Your task to perform on an android device: Clear all items from cart on amazon. Add "asus rog" to the cart on amazon, then select checkout. Image 0: 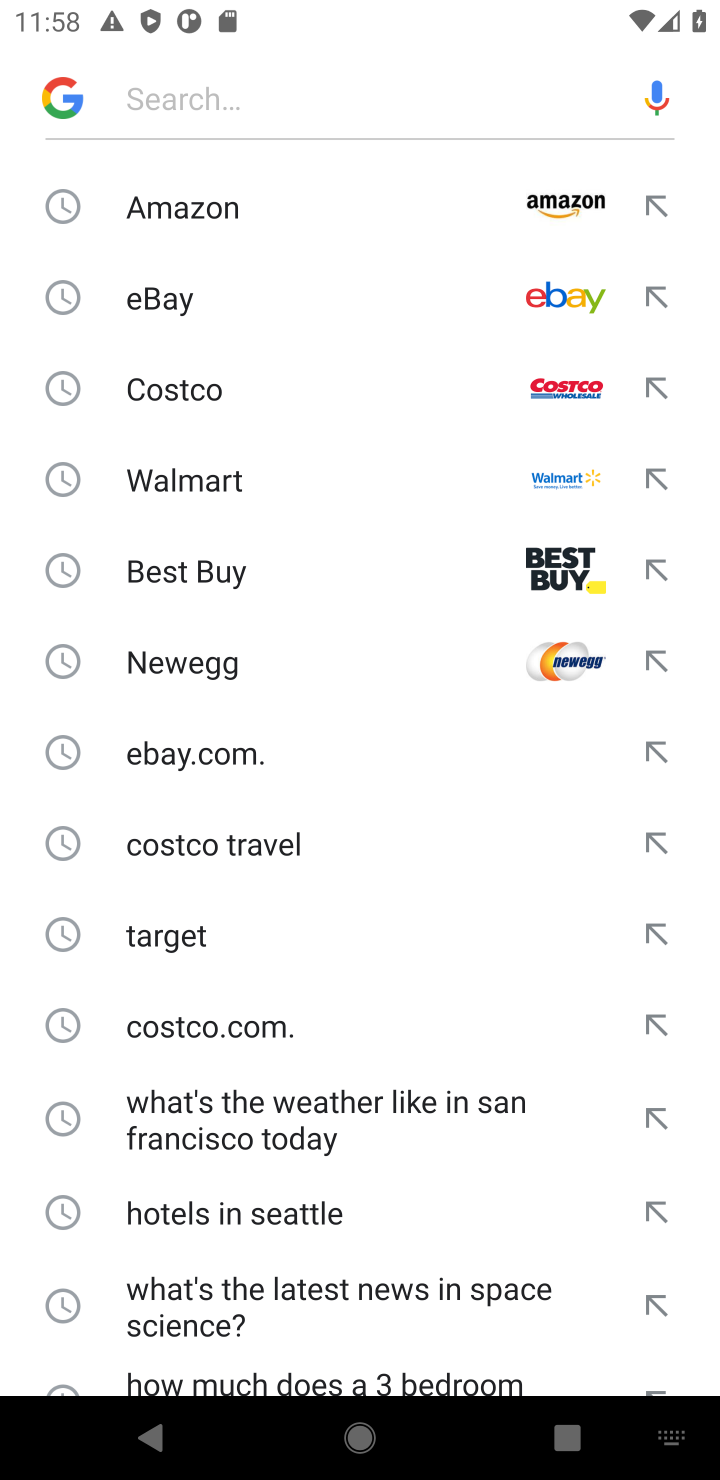
Step 0: click (351, 194)
Your task to perform on an android device: Clear all items from cart on amazon. Add "asus rog" to the cart on amazon, then select checkout. Image 1: 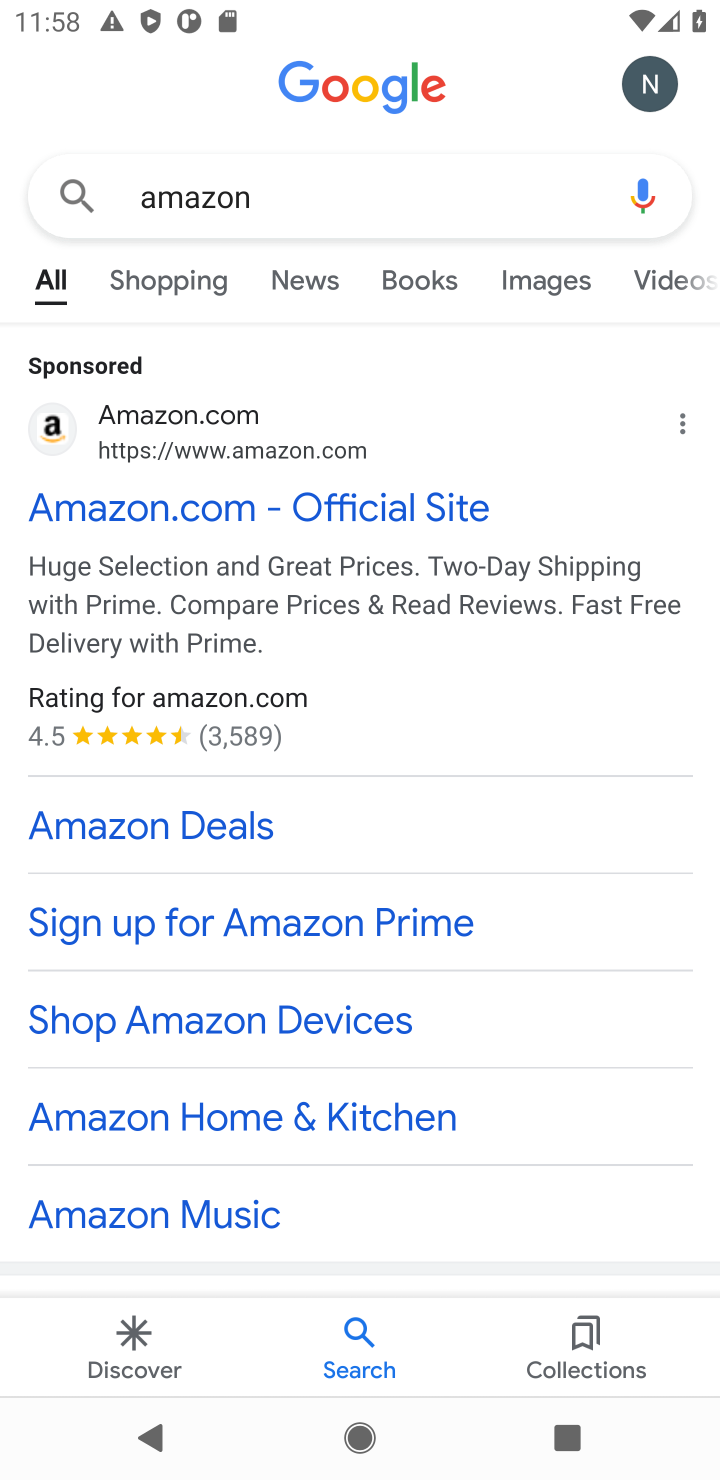
Step 1: drag from (421, 807) to (495, 327)
Your task to perform on an android device: Clear all items from cart on amazon. Add "asus rog" to the cart on amazon, then select checkout. Image 2: 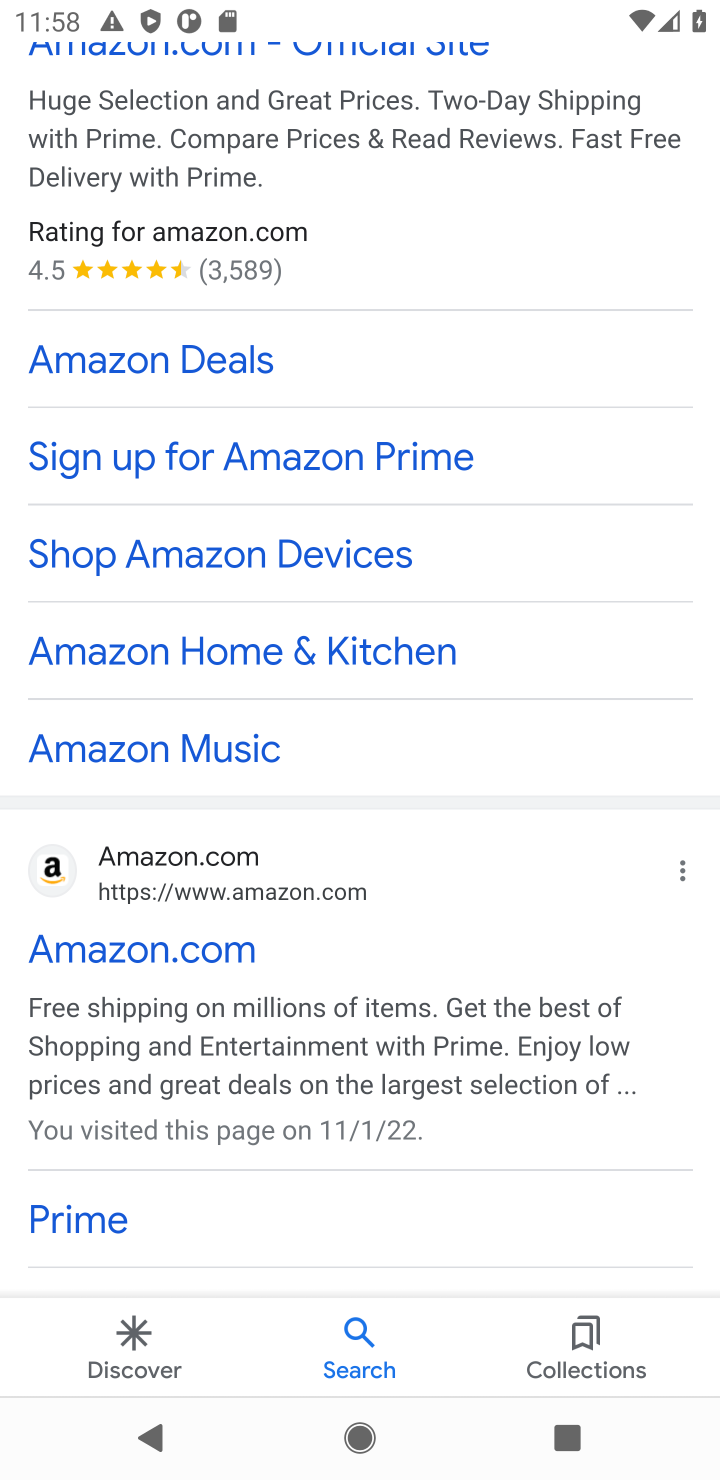
Step 2: click (133, 948)
Your task to perform on an android device: Clear all items from cart on amazon. Add "asus rog" to the cart on amazon, then select checkout. Image 3: 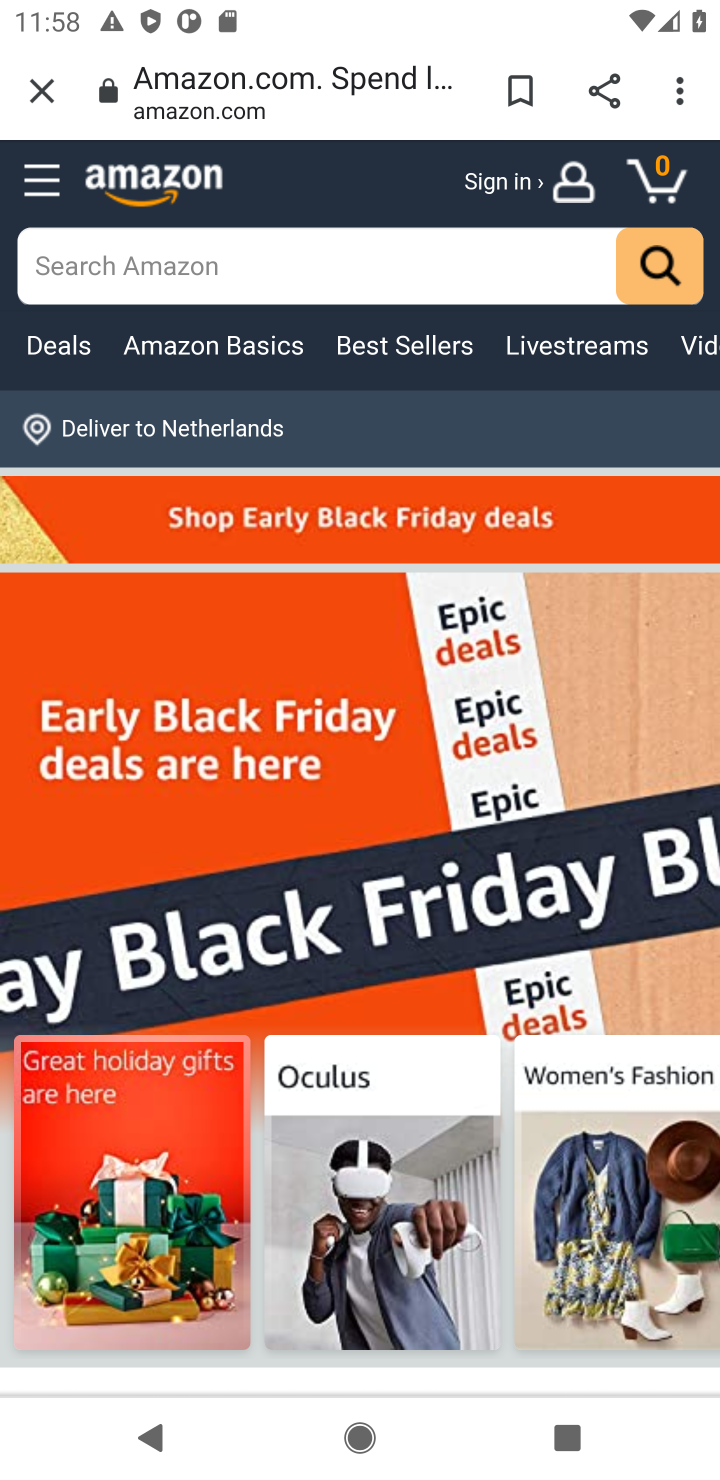
Step 3: click (170, 246)
Your task to perform on an android device: Clear all items from cart on amazon. Add "asus rog" to the cart on amazon, then select checkout. Image 4: 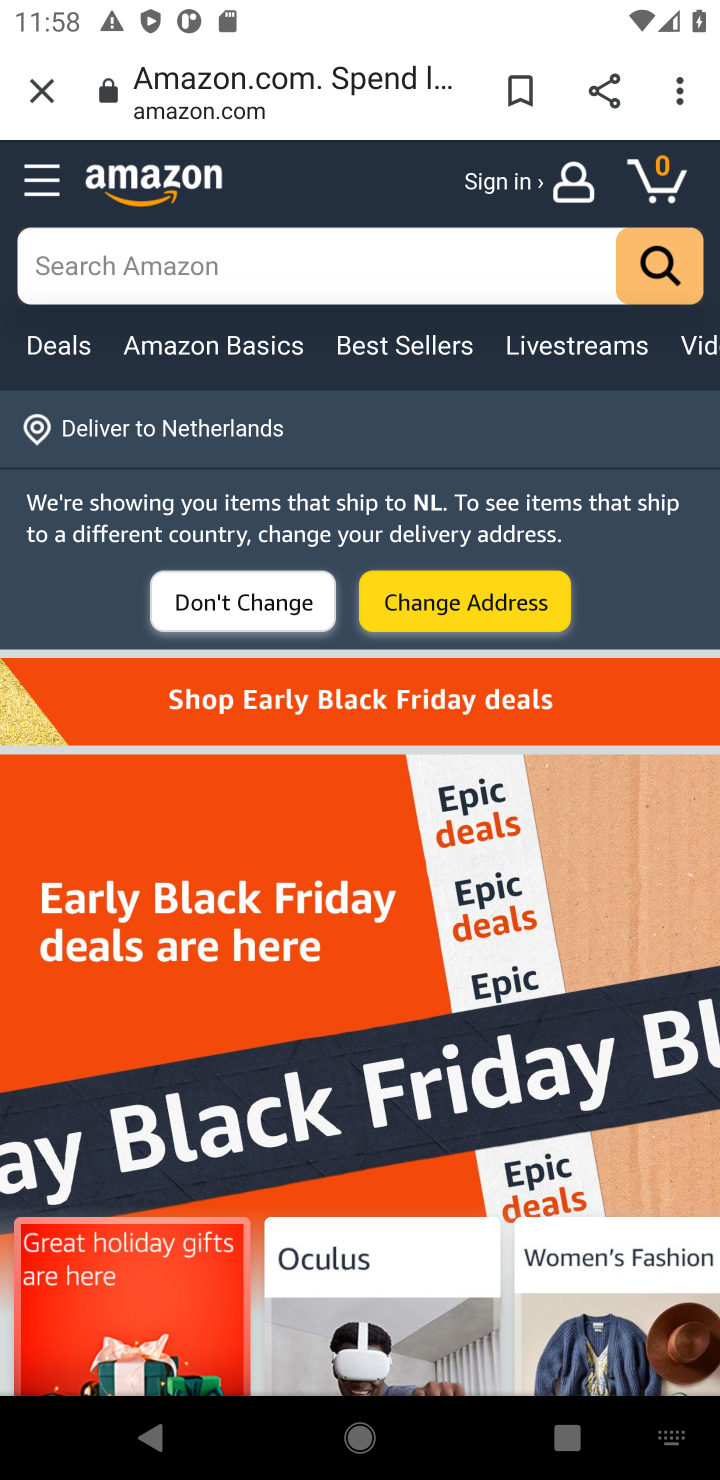
Step 4: type "asus rog"
Your task to perform on an android device: Clear all items from cart on amazon. Add "asus rog" to the cart on amazon, then select checkout. Image 5: 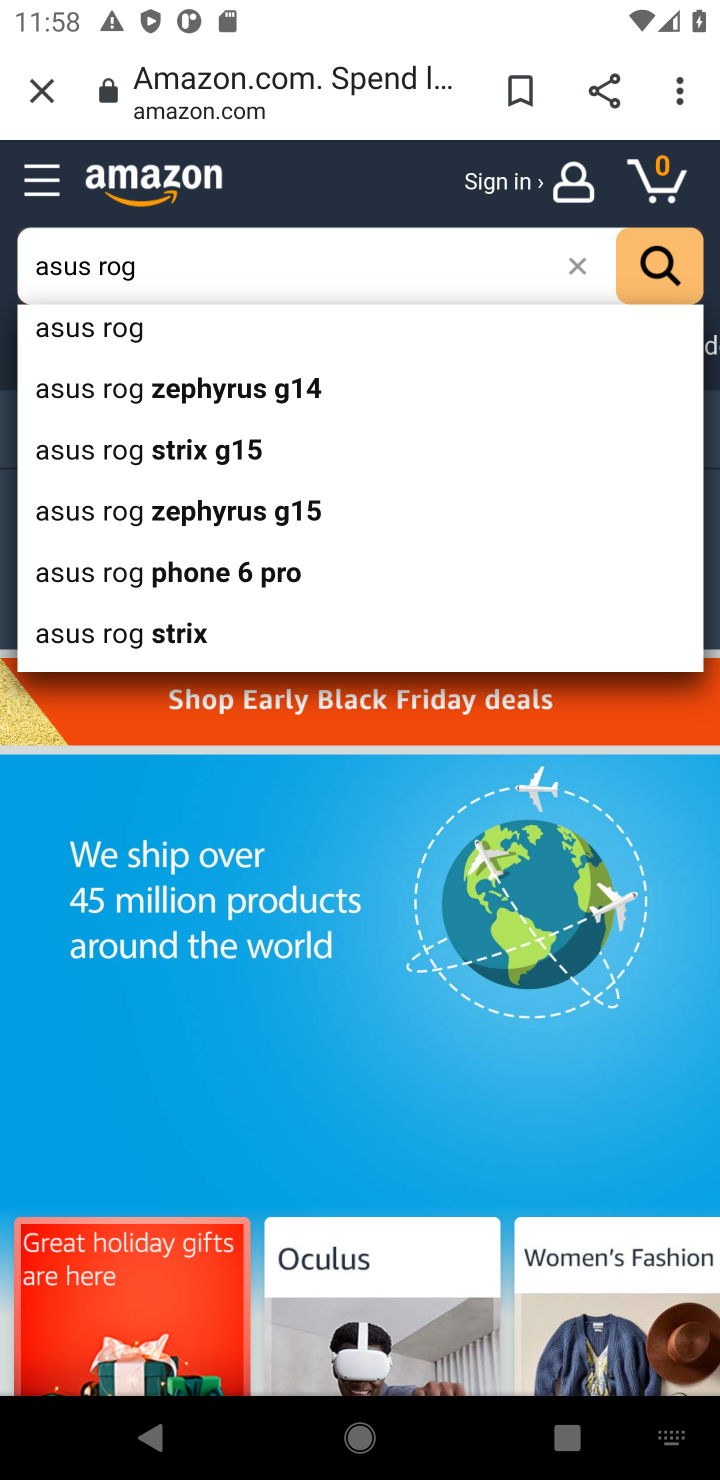
Step 5: click (53, 321)
Your task to perform on an android device: Clear all items from cart on amazon. Add "asus rog" to the cart on amazon, then select checkout. Image 6: 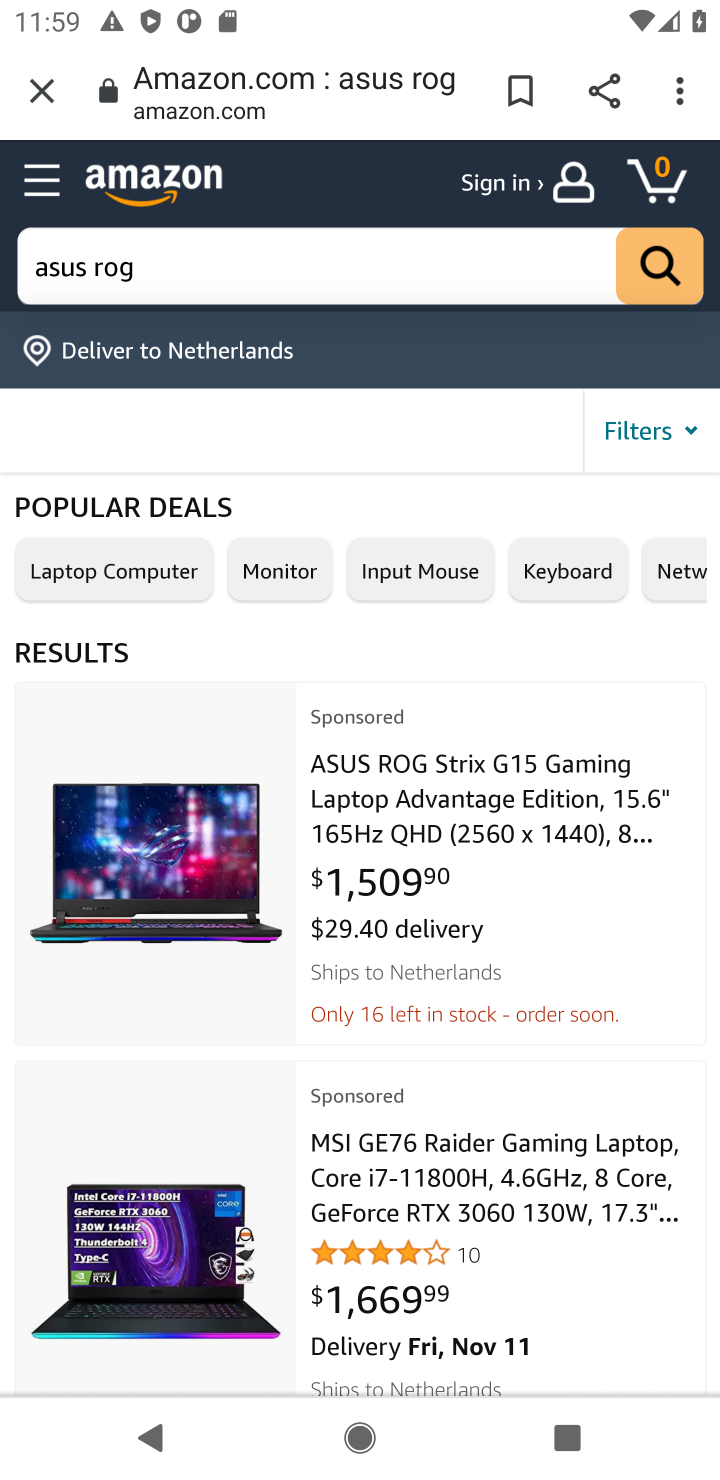
Step 6: click (497, 841)
Your task to perform on an android device: Clear all items from cart on amazon. Add "asus rog" to the cart on amazon, then select checkout. Image 7: 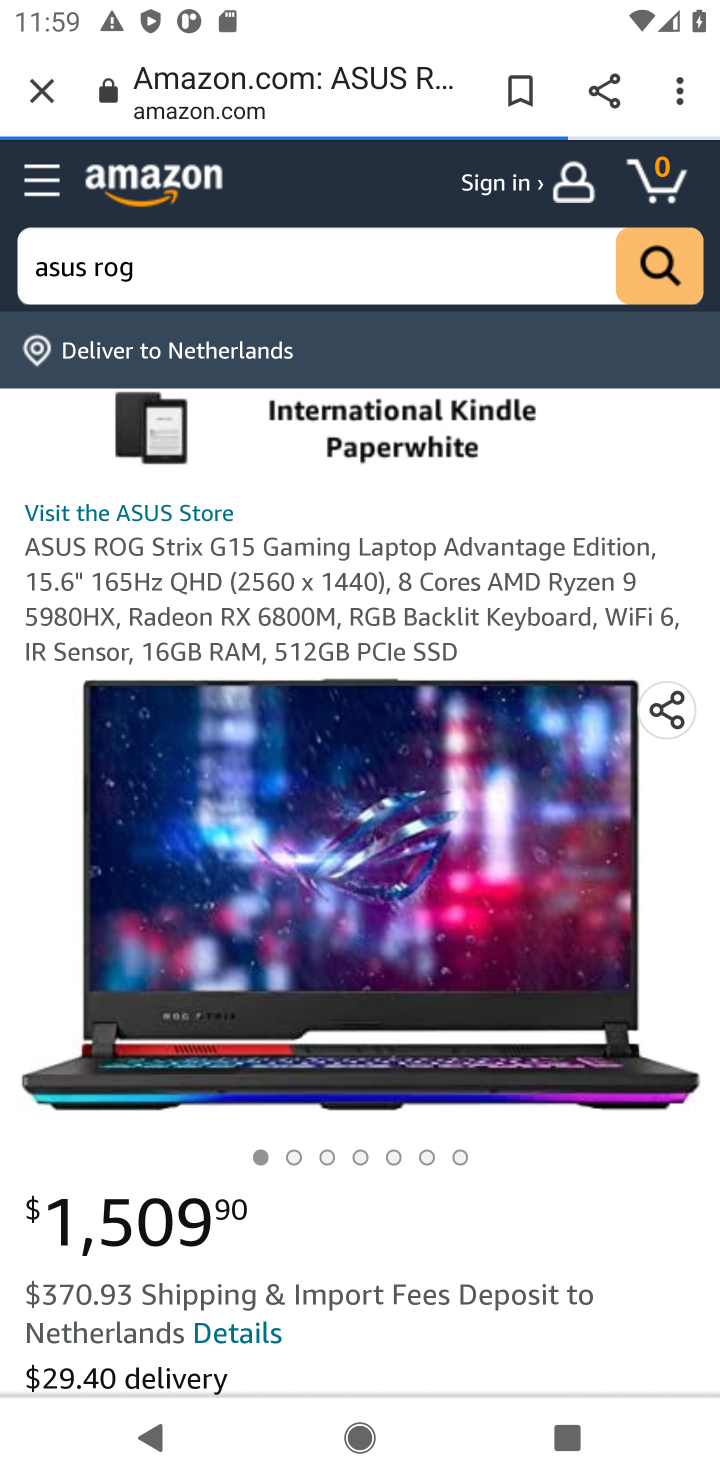
Step 7: drag from (447, 1266) to (649, 532)
Your task to perform on an android device: Clear all items from cart on amazon. Add "asus rog" to the cart on amazon, then select checkout. Image 8: 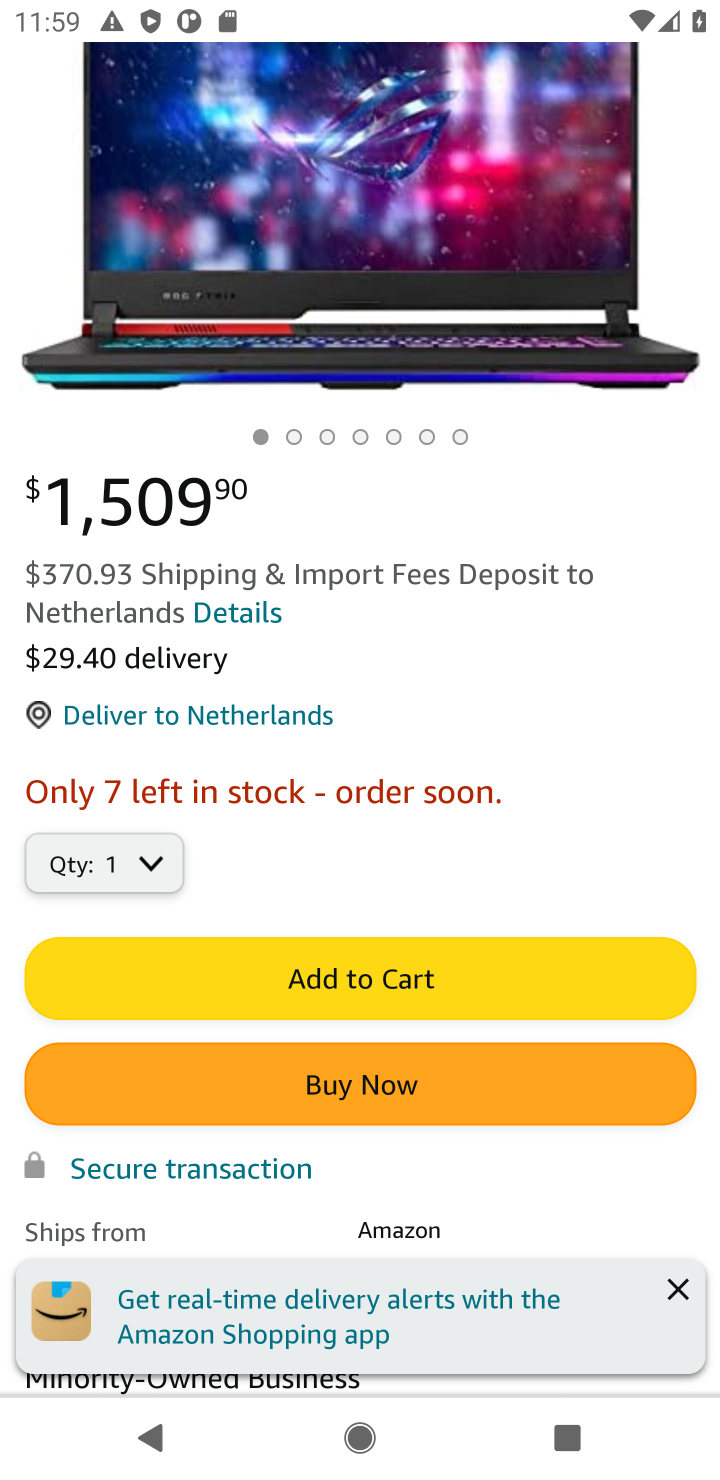
Step 8: click (389, 973)
Your task to perform on an android device: Clear all items from cart on amazon. Add "asus rog" to the cart on amazon, then select checkout. Image 9: 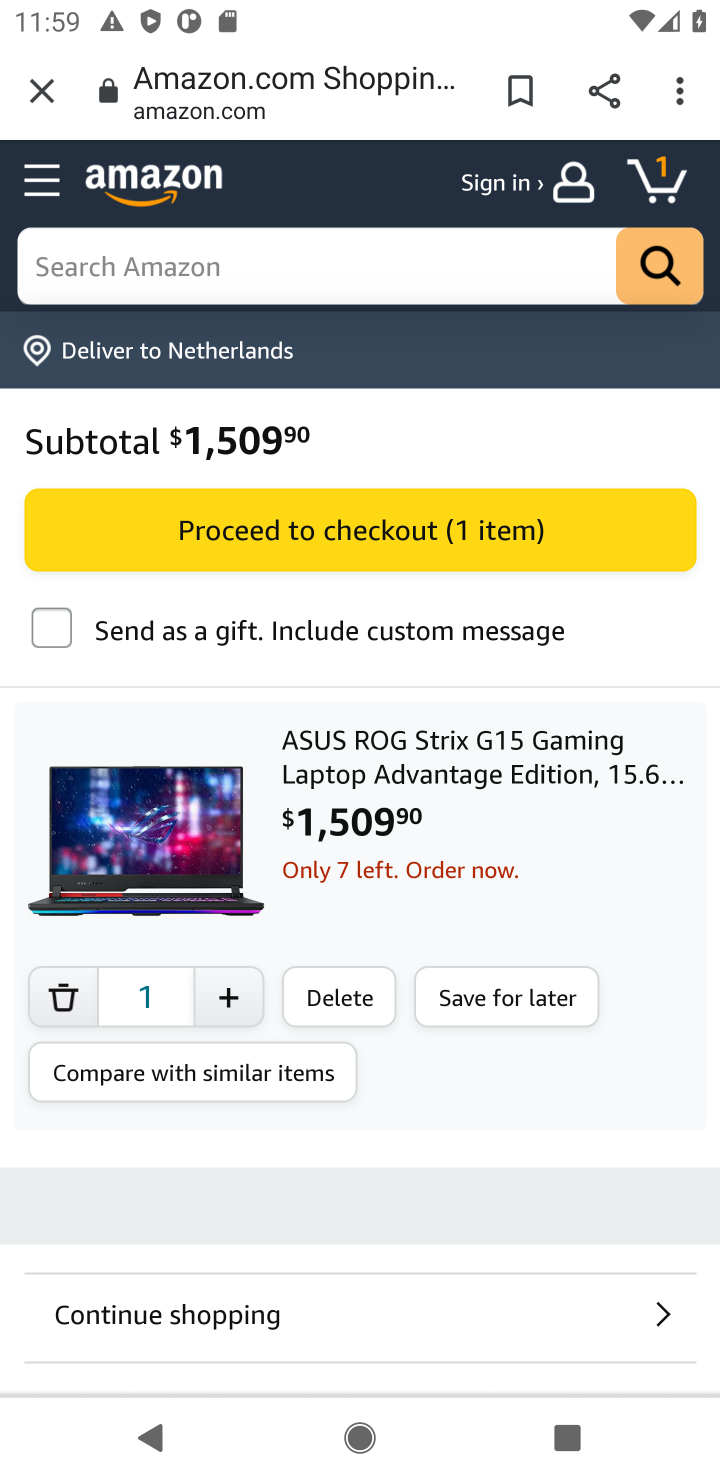
Step 9: click (406, 532)
Your task to perform on an android device: Clear all items from cart on amazon. Add "asus rog" to the cart on amazon, then select checkout. Image 10: 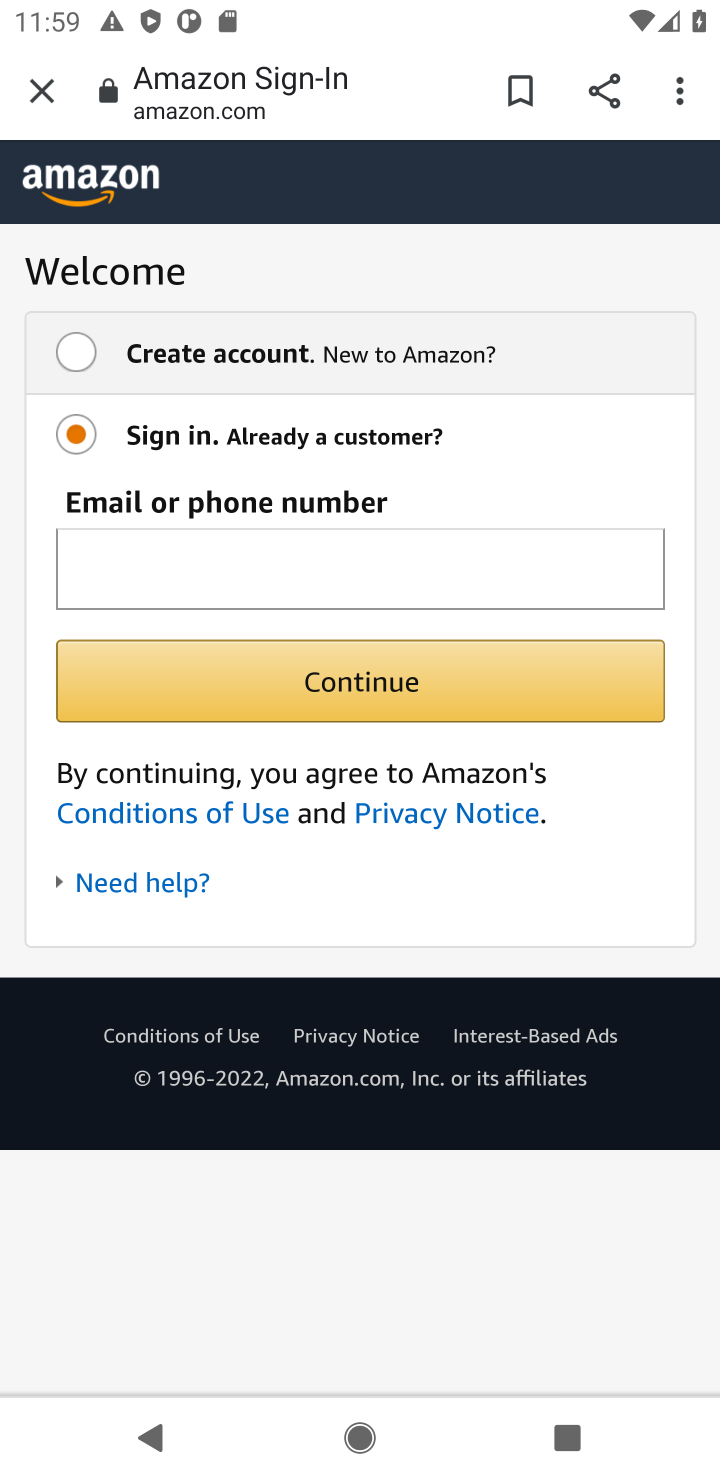
Step 10: task complete